Your task to perform on an android device: turn on showing notifications on the lock screen Image 0: 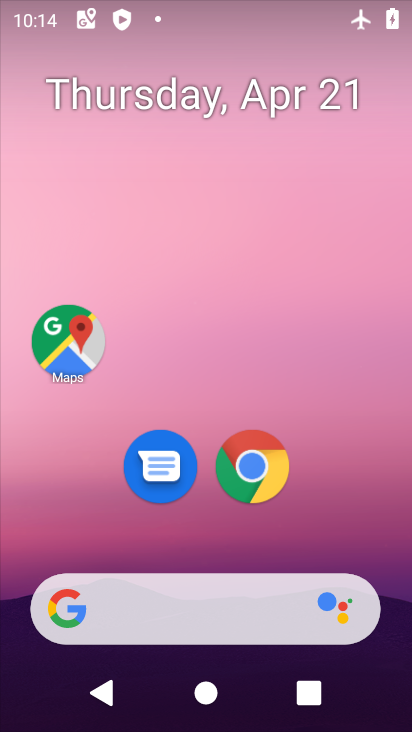
Step 0: drag from (336, 510) to (351, 5)
Your task to perform on an android device: turn on showing notifications on the lock screen Image 1: 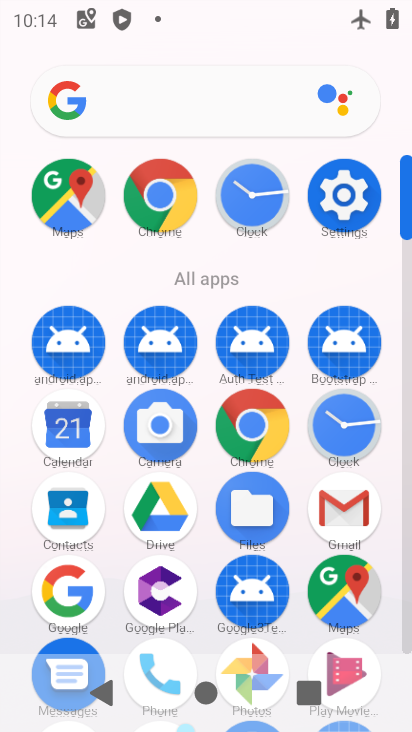
Step 1: click (328, 214)
Your task to perform on an android device: turn on showing notifications on the lock screen Image 2: 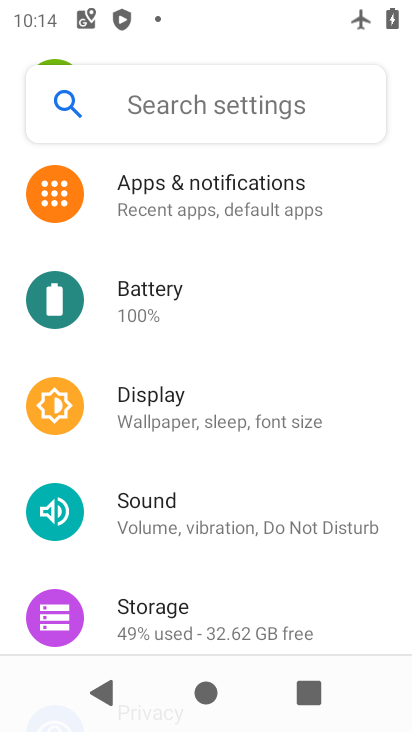
Step 2: drag from (256, 593) to (339, 87)
Your task to perform on an android device: turn on showing notifications on the lock screen Image 3: 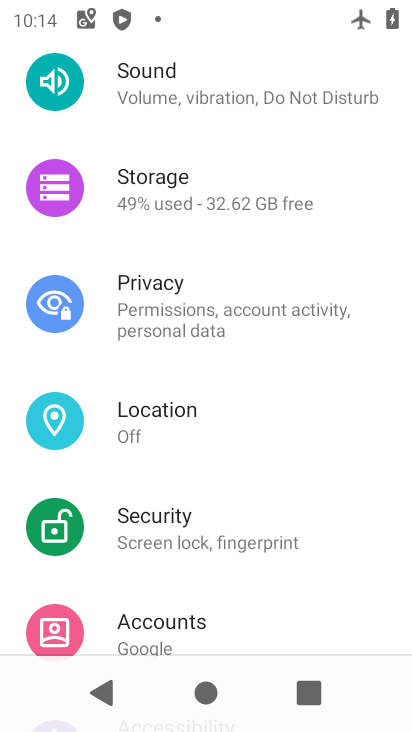
Step 3: drag from (230, 517) to (279, 140)
Your task to perform on an android device: turn on showing notifications on the lock screen Image 4: 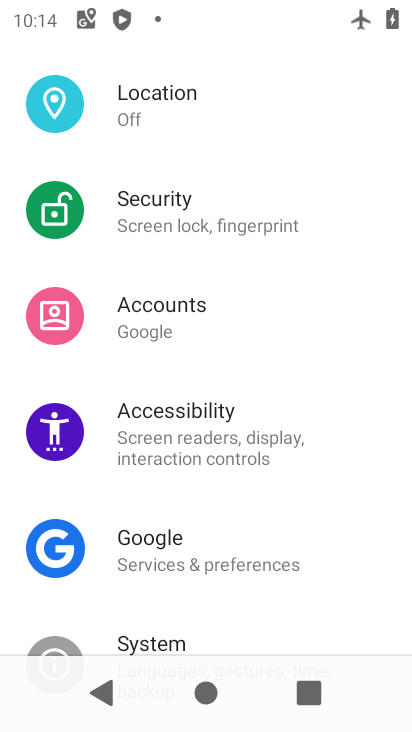
Step 4: drag from (240, 566) to (284, 152)
Your task to perform on an android device: turn on showing notifications on the lock screen Image 5: 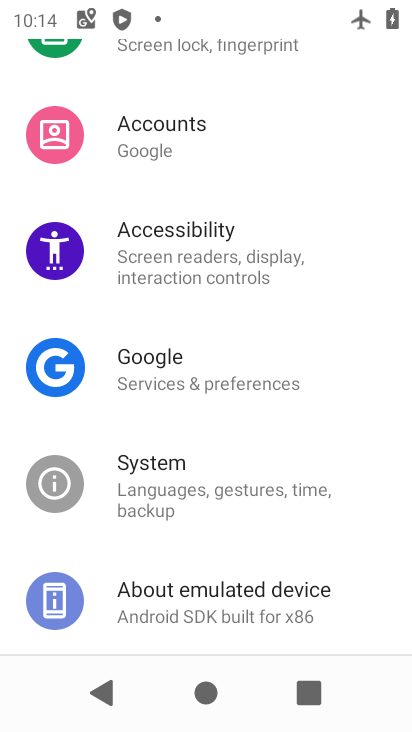
Step 5: drag from (296, 175) to (244, 549)
Your task to perform on an android device: turn on showing notifications on the lock screen Image 6: 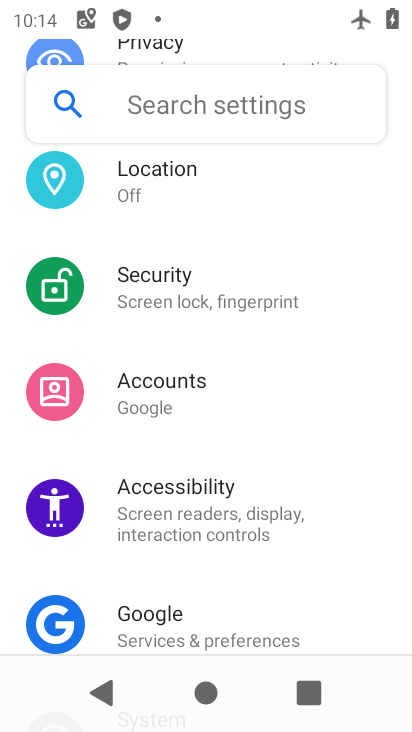
Step 6: drag from (254, 177) to (244, 530)
Your task to perform on an android device: turn on showing notifications on the lock screen Image 7: 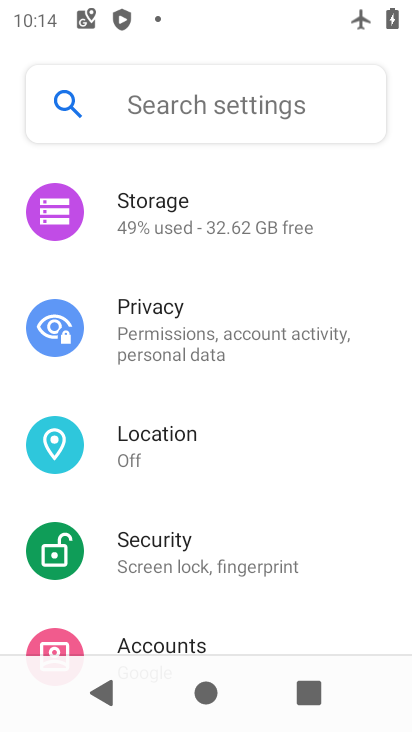
Step 7: drag from (292, 253) to (253, 555)
Your task to perform on an android device: turn on showing notifications on the lock screen Image 8: 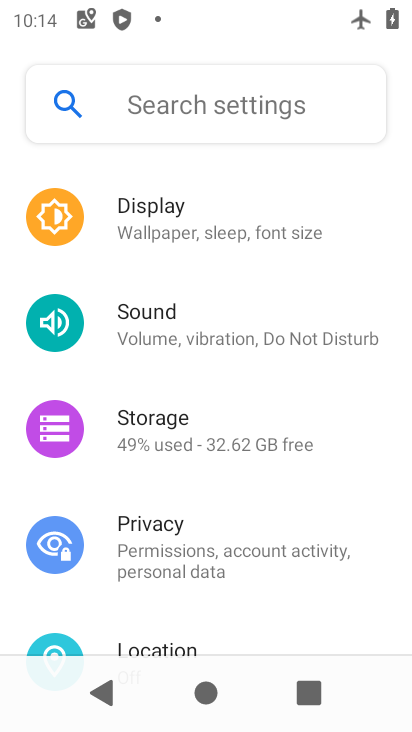
Step 8: drag from (242, 219) to (243, 577)
Your task to perform on an android device: turn on showing notifications on the lock screen Image 9: 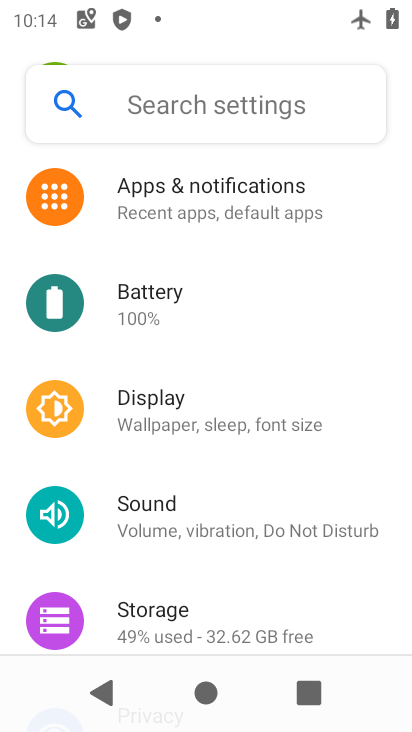
Step 9: click (228, 190)
Your task to perform on an android device: turn on showing notifications on the lock screen Image 10: 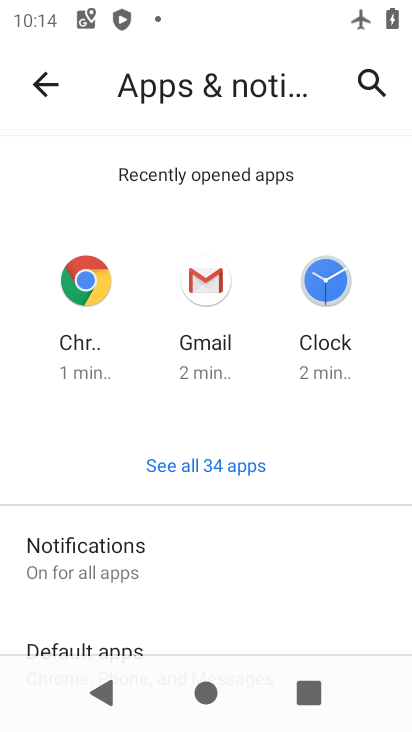
Step 10: drag from (214, 568) to (247, 301)
Your task to perform on an android device: turn on showing notifications on the lock screen Image 11: 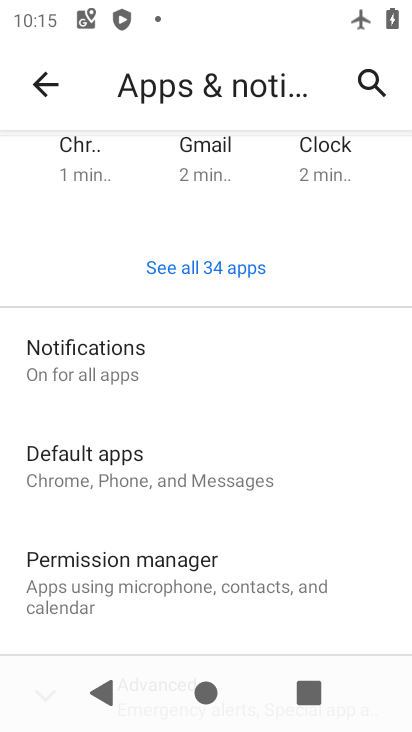
Step 11: click (105, 376)
Your task to perform on an android device: turn on showing notifications on the lock screen Image 12: 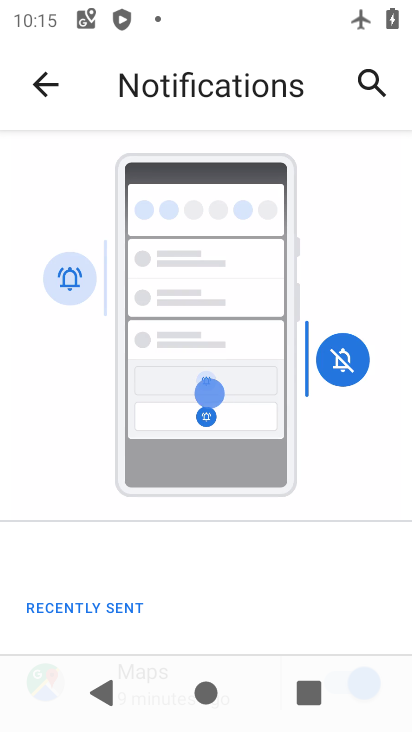
Step 12: drag from (214, 607) to (263, 225)
Your task to perform on an android device: turn on showing notifications on the lock screen Image 13: 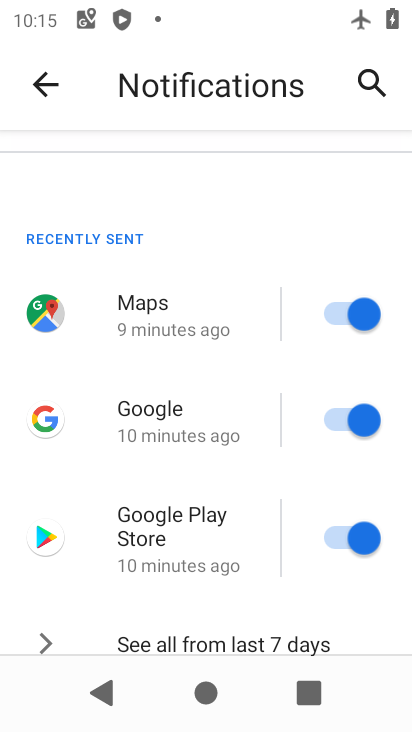
Step 13: drag from (190, 572) to (235, 157)
Your task to perform on an android device: turn on showing notifications on the lock screen Image 14: 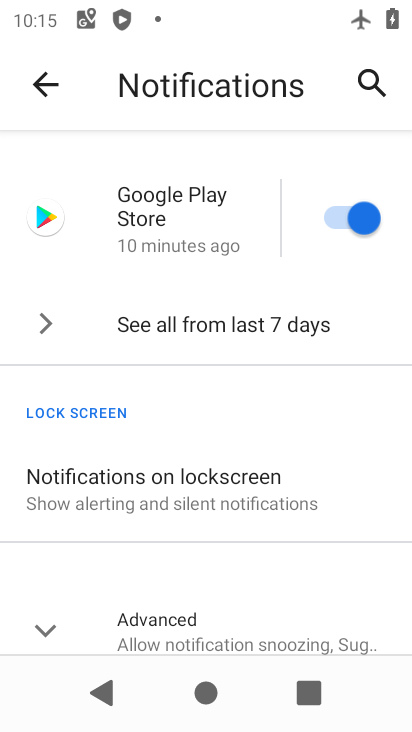
Step 14: click (178, 483)
Your task to perform on an android device: turn on showing notifications on the lock screen Image 15: 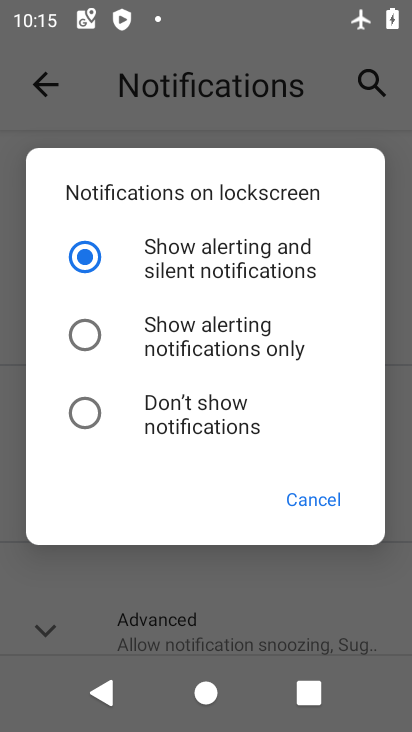
Step 15: click (246, 342)
Your task to perform on an android device: turn on showing notifications on the lock screen Image 16: 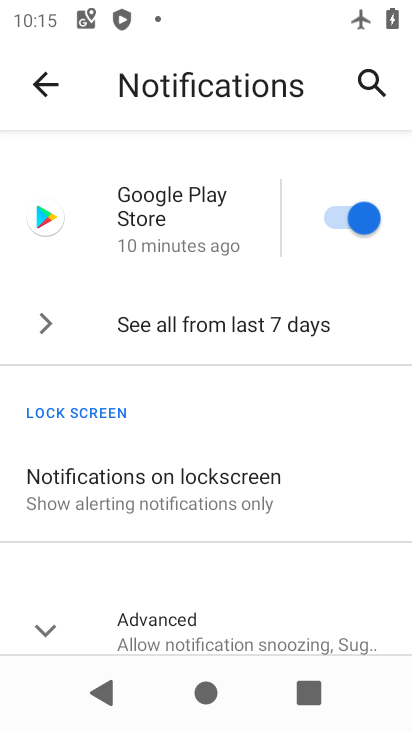
Step 16: task complete